Your task to perform on an android device: Open the phone app and click the voicemail tab. Image 0: 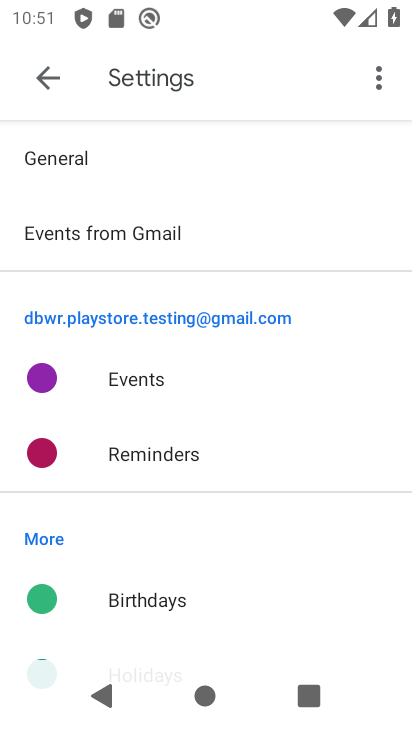
Step 0: press home button
Your task to perform on an android device: Open the phone app and click the voicemail tab. Image 1: 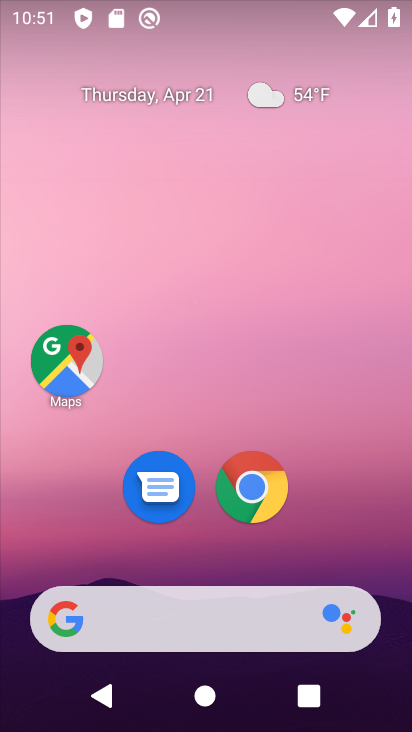
Step 1: drag from (381, 564) to (404, 105)
Your task to perform on an android device: Open the phone app and click the voicemail tab. Image 2: 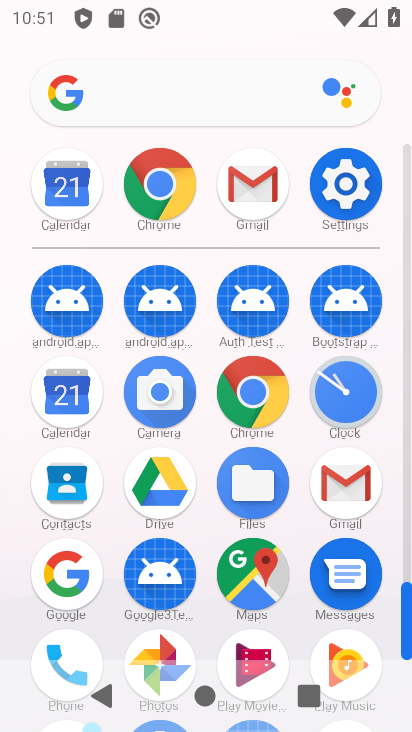
Step 2: drag from (299, 512) to (313, 217)
Your task to perform on an android device: Open the phone app and click the voicemail tab. Image 3: 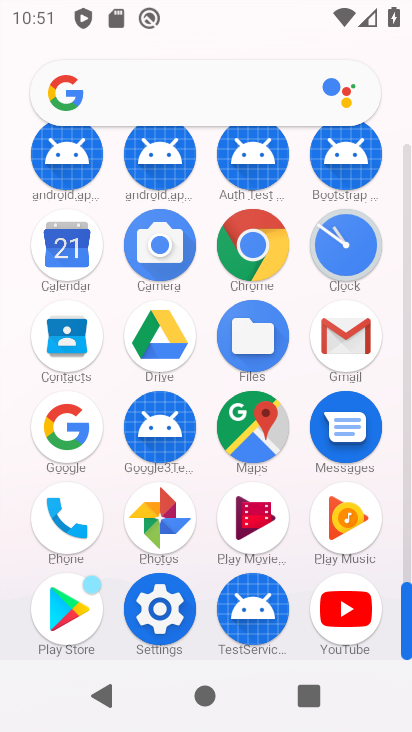
Step 3: click (87, 531)
Your task to perform on an android device: Open the phone app and click the voicemail tab. Image 4: 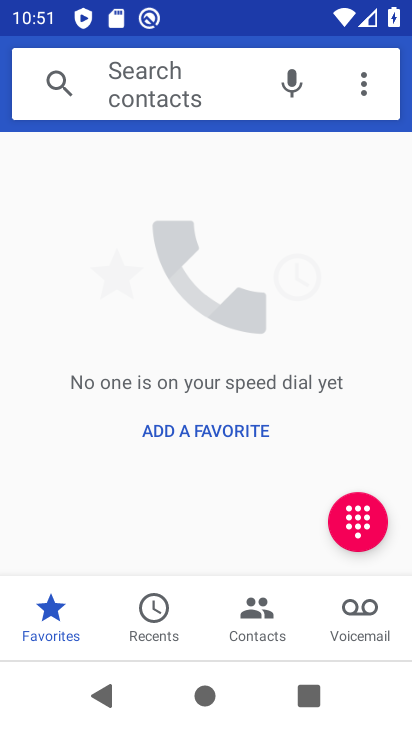
Step 4: click (371, 620)
Your task to perform on an android device: Open the phone app and click the voicemail tab. Image 5: 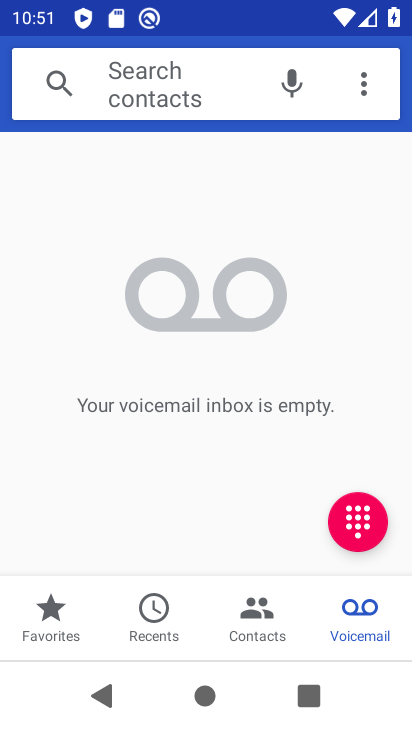
Step 5: task complete